Your task to perform on an android device: turn off wifi Image 0: 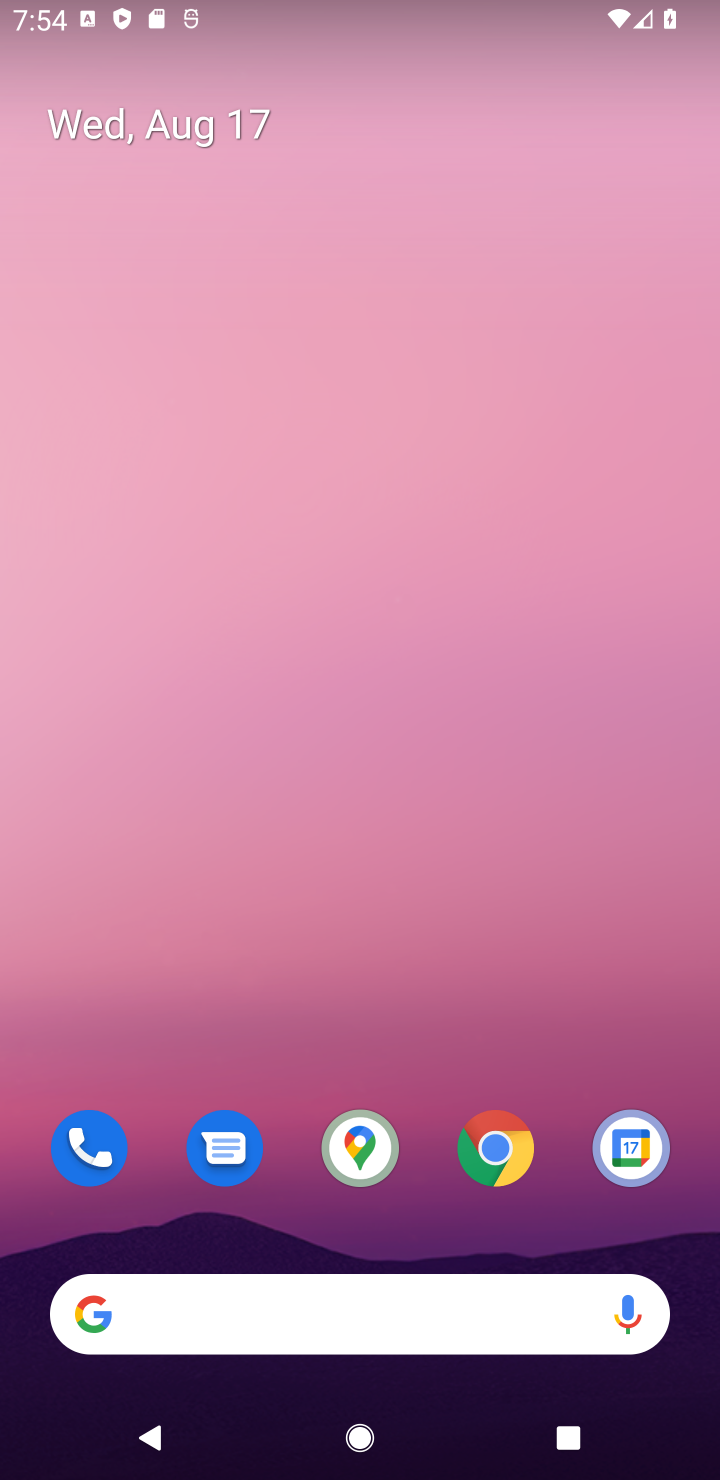
Step 0: drag from (559, 1039) to (551, 322)
Your task to perform on an android device: turn off wifi Image 1: 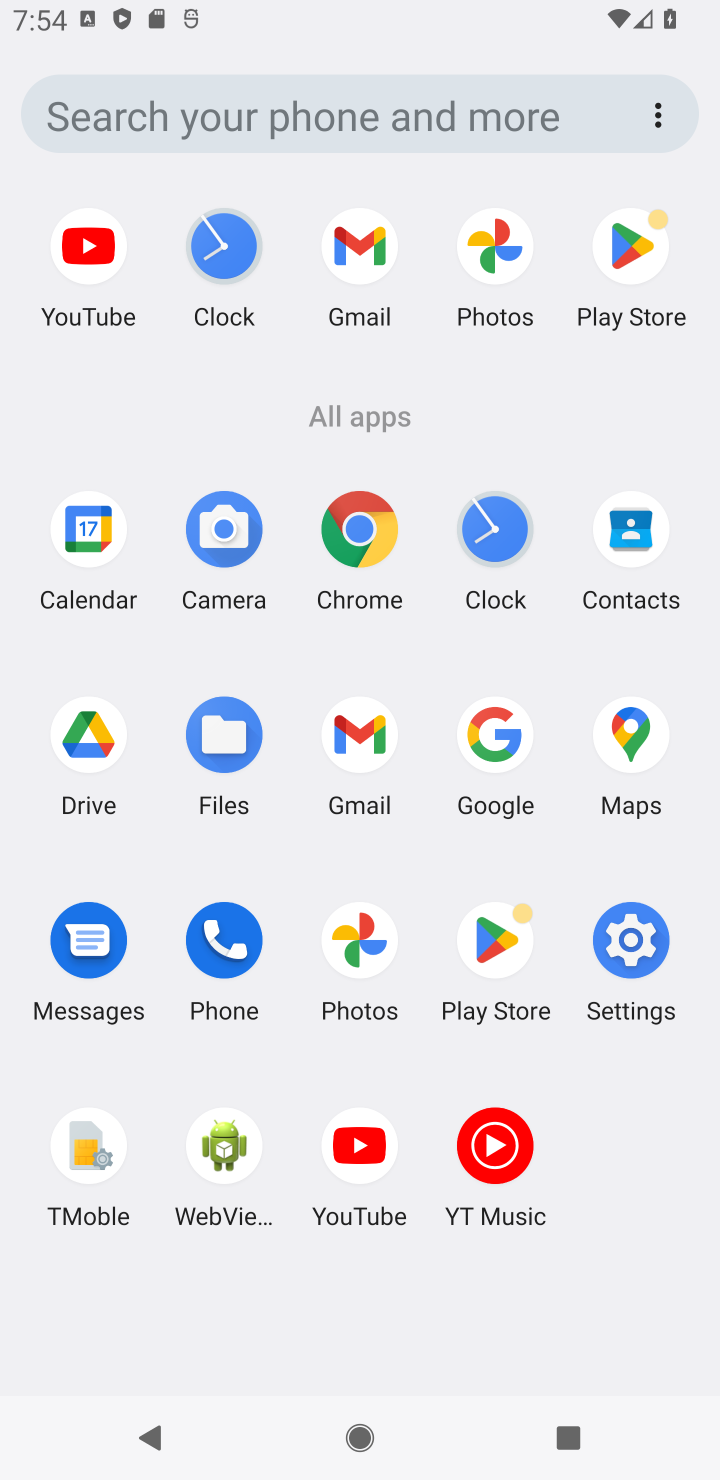
Step 1: click (633, 940)
Your task to perform on an android device: turn off wifi Image 2: 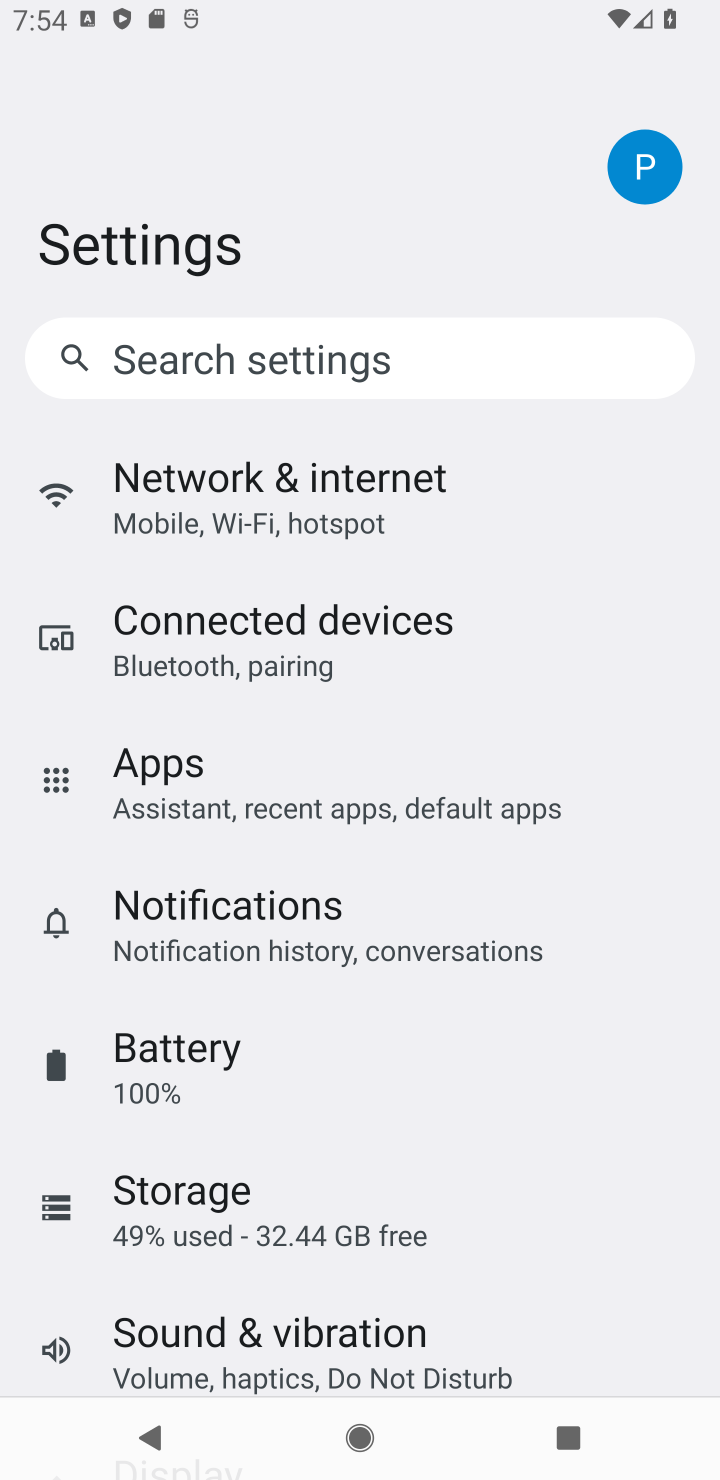
Step 2: click (229, 474)
Your task to perform on an android device: turn off wifi Image 3: 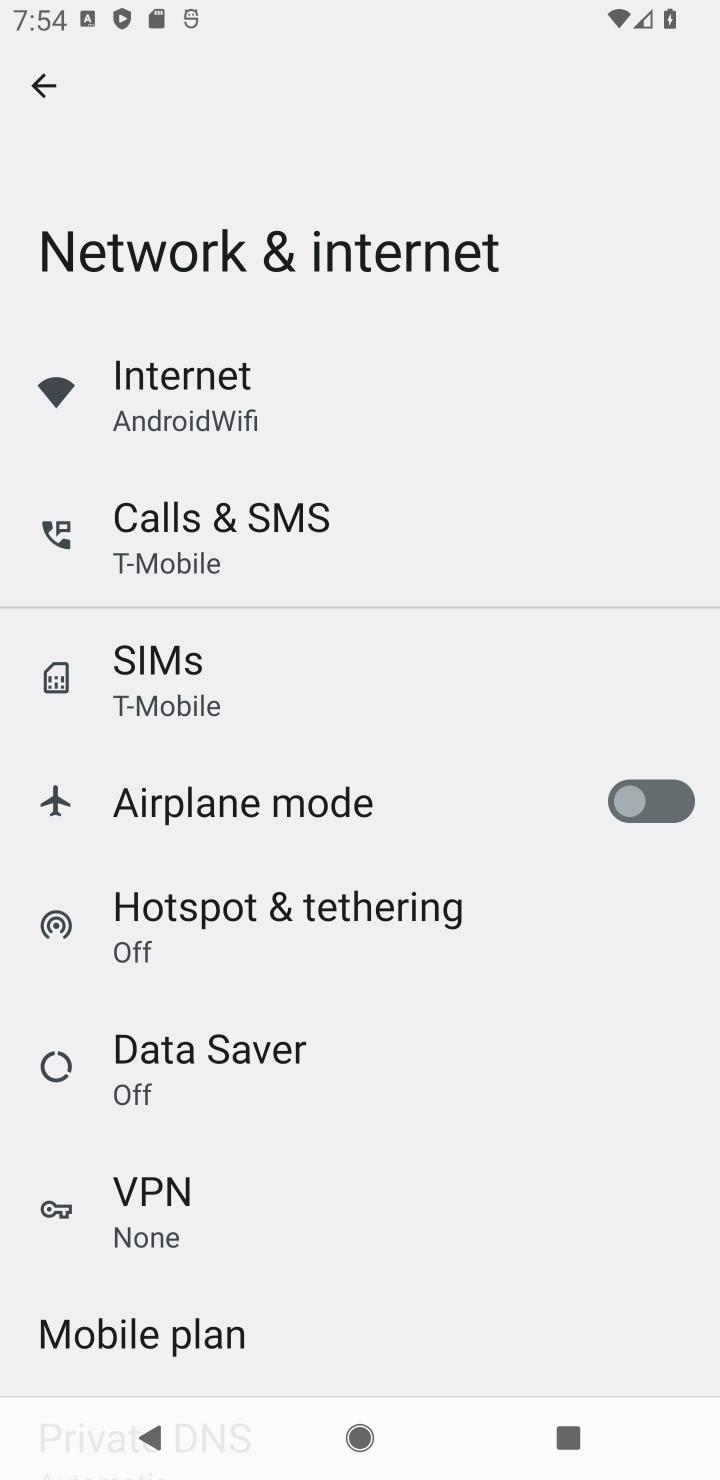
Step 3: click (192, 399)
Your task to perform on an android device: turn off wifi Image 4: 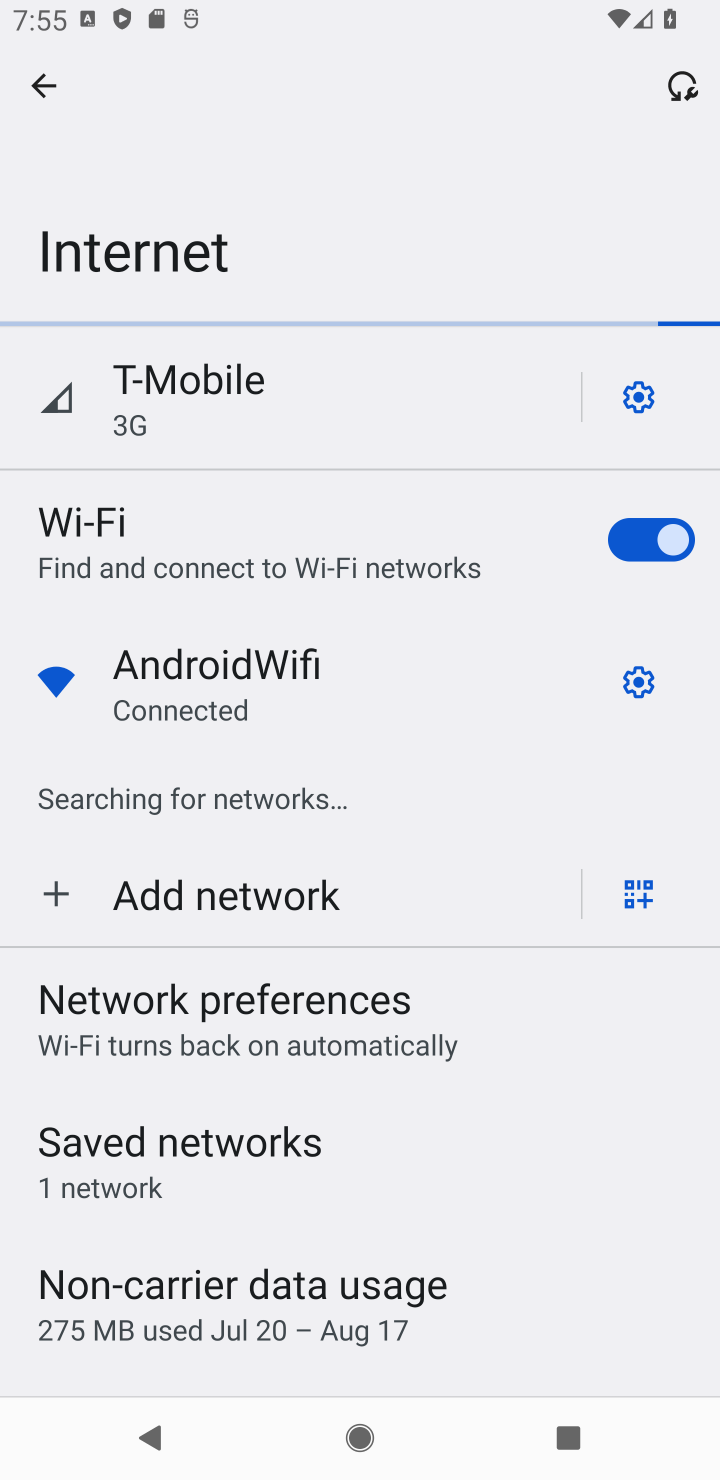
Step 4: click (619, 543)
Your task to perform on an android device: turn off wifi Image 5: 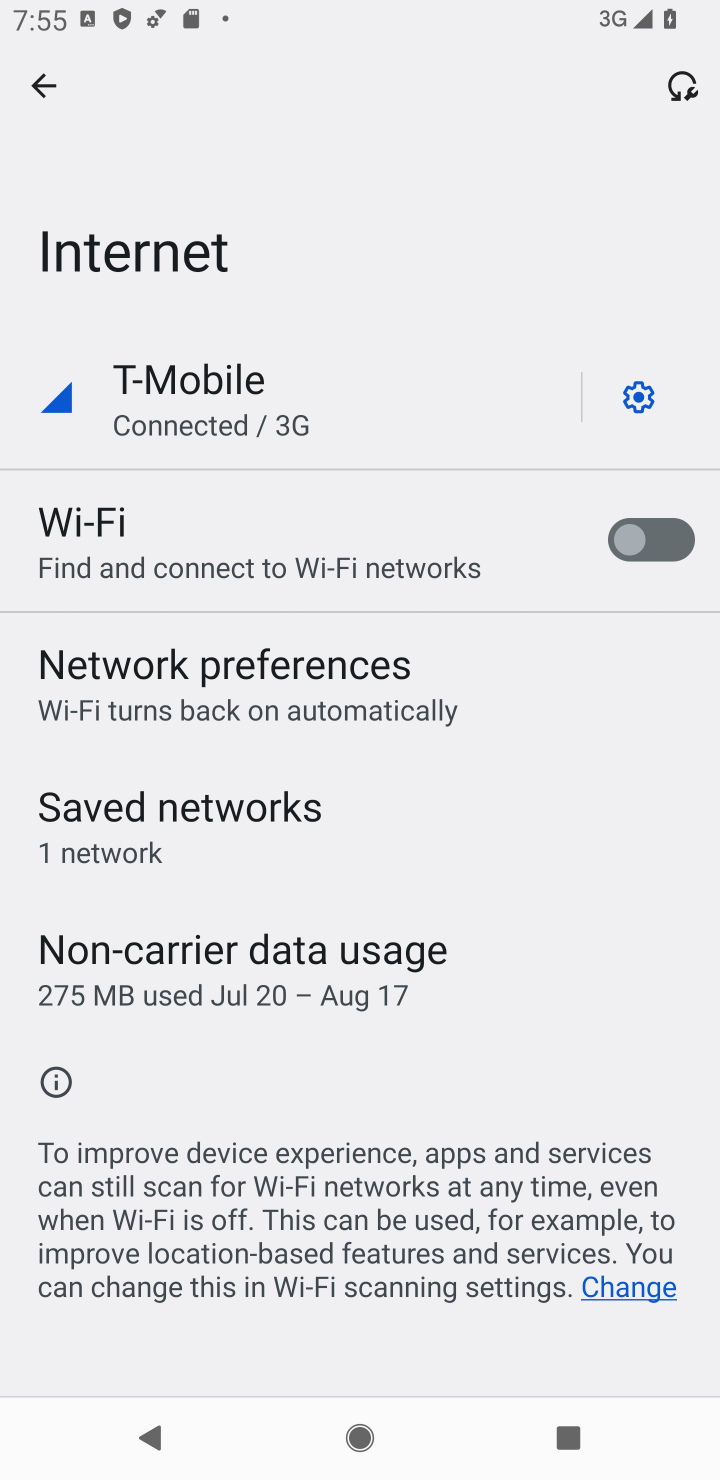
Step 5: task complete